Your task to perform on an android device: Go to ESPN.com Image 0: 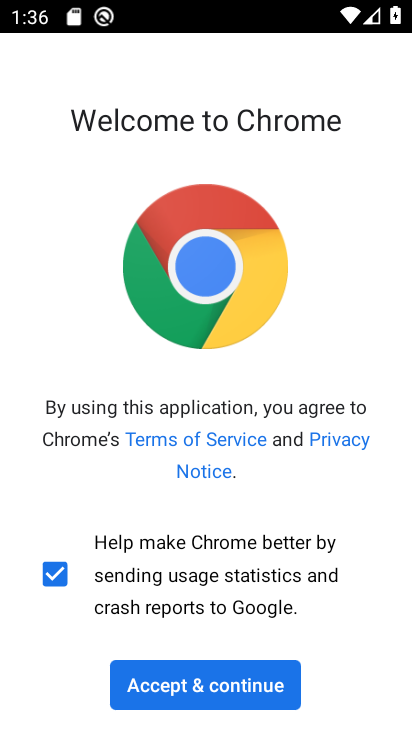
Step 0: press home button
Your task to perform on an android device: Go to ESPN.com Image 1: 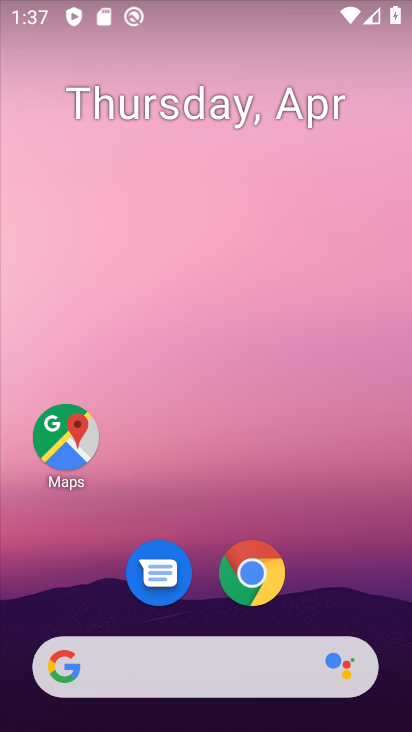
Step 1: click (256, 576)
Your task to perform on an android device: Go to ESPN.com Image 2: 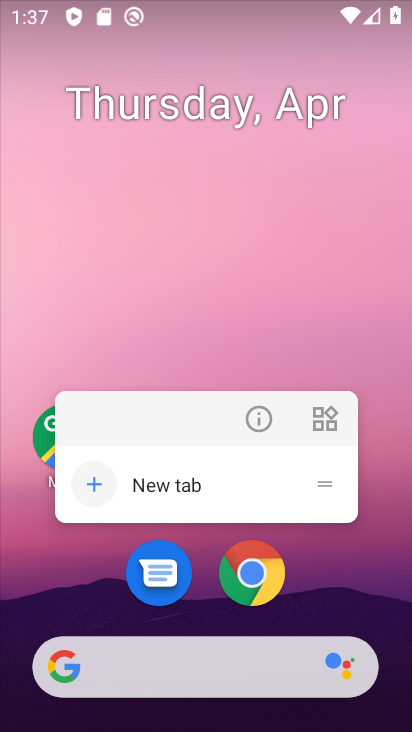
Step 2: click (271, 570)
Your task to perform on an android device: Go to ESPN.com Image 3: 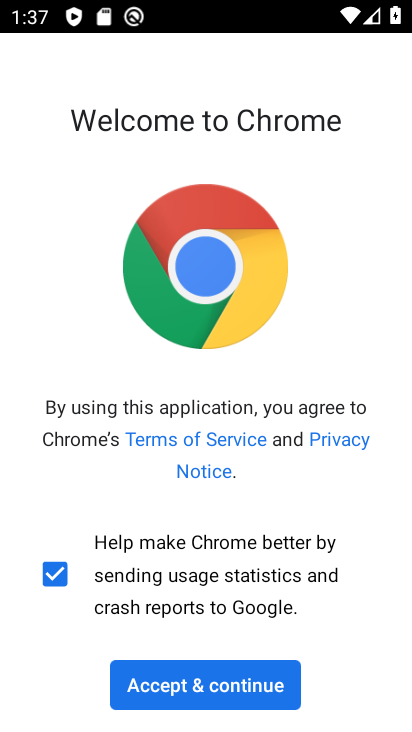
Step 3: click (212, 688)
Your task to perform on an android device: Go to ESPN.com Image 4: 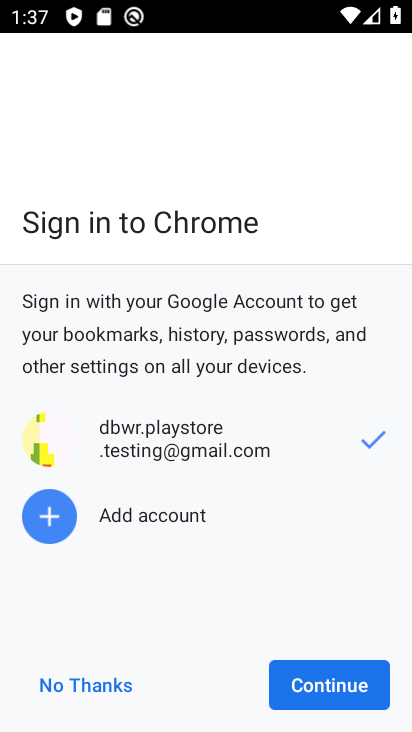
Step 4: click (332, 672)
Your task to perform on an android device: Go to ESPN.com Image 5: 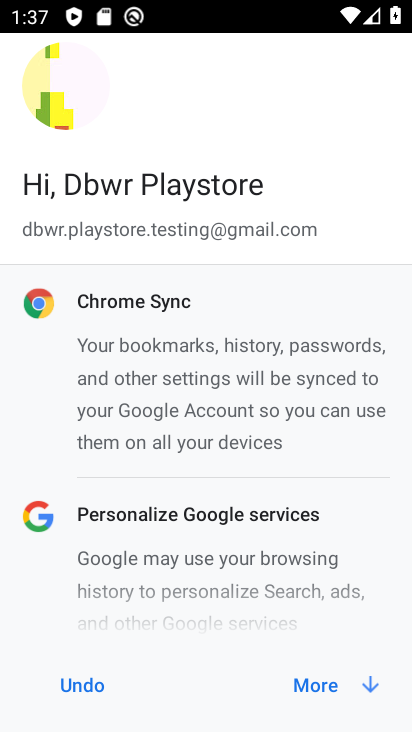
Step 5: click (307, 677)
Your task to perform on an android device: Go to ESPN.com Image 6: 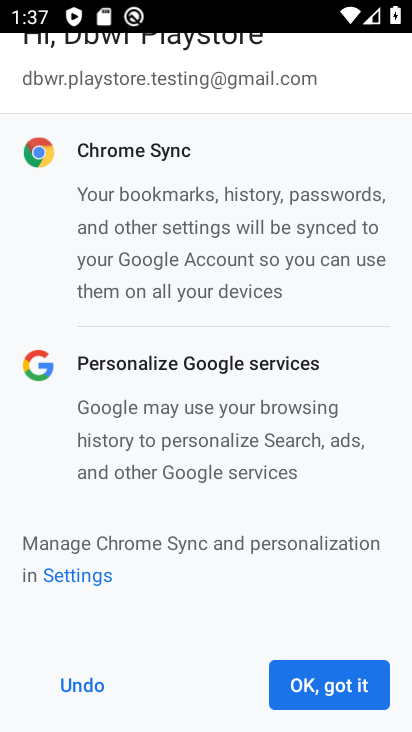
Step 6: click (309, 691)
Your task to perform on an android device: Go to ESPN.com Image 7: 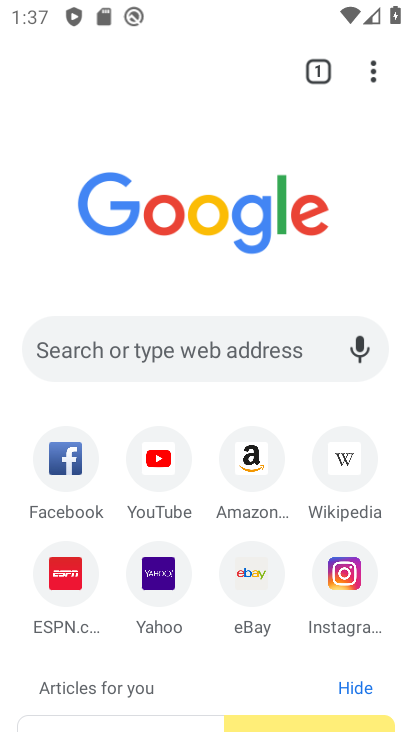
Step 7: click (55, 576)
Your task to perform on an android device: Go to ESPN.com Image 8: 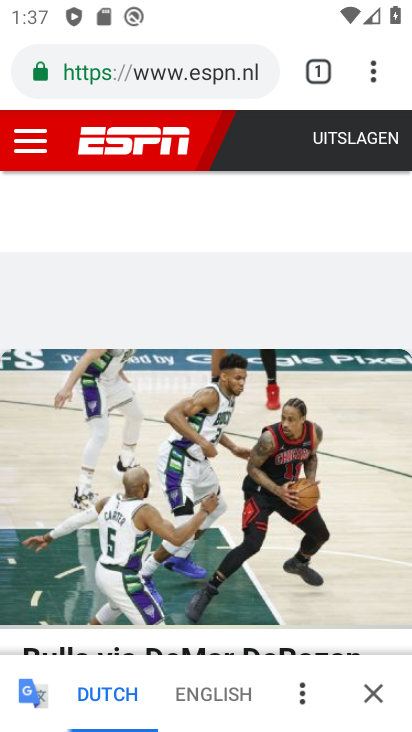
Step 8: task complete